Your task to perform on an android device: turn on bluetooth scan Image 0: 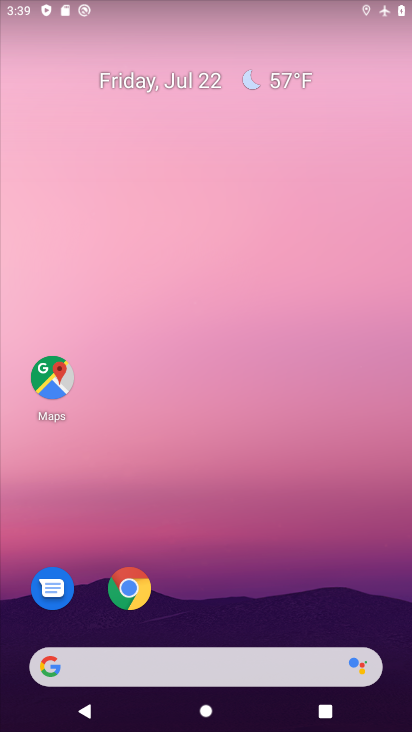
Step 0: drag from (217, 618) to (194, 57)
Your task to perform on an android device: turn on bluetooth scan Image 1: 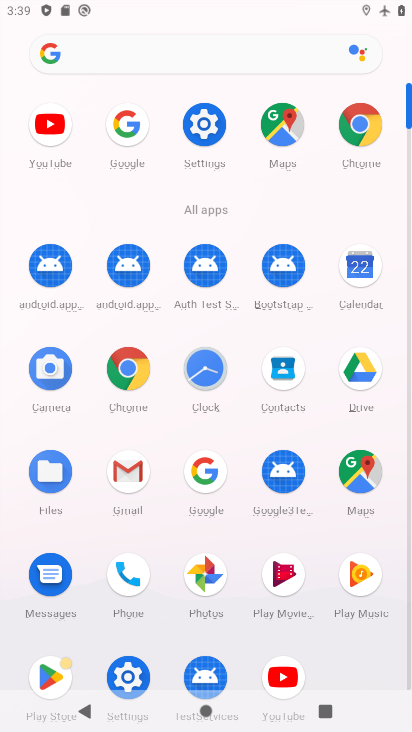
Step 1: click (205, 144)
Your task to perform on an android device: turn on bluetooth scan Image 2: 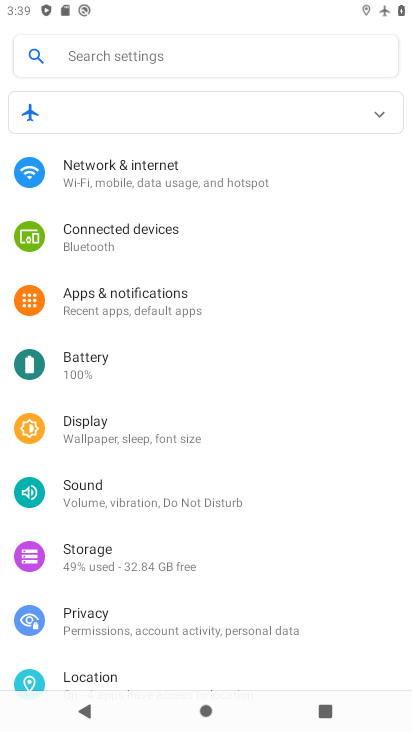
Step 2: drag from (104, 590) to (88, 299)
Your task to perform on an android device: turn on bluetooth scan Image 3: 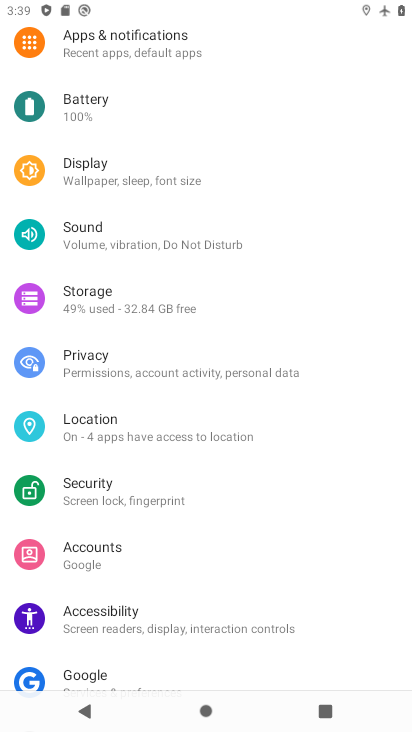
Step 3: click (106, 422)
Your task to perform on an android device: turn on bluetooth scan Image 4: 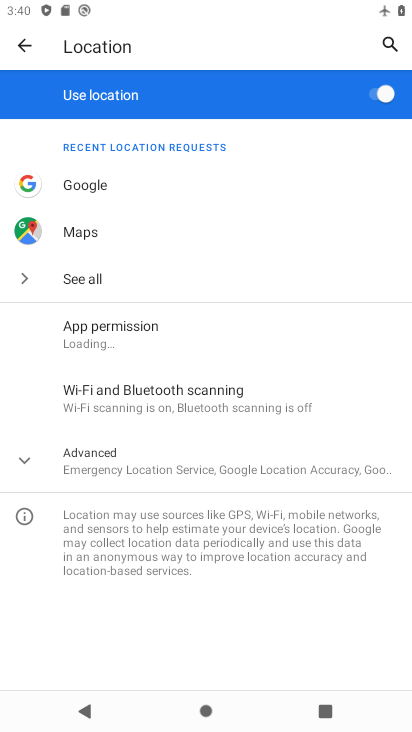
Step 4: click (142, 420)
Your task to perform on an android device: turn on bluetooth scan Image 5: 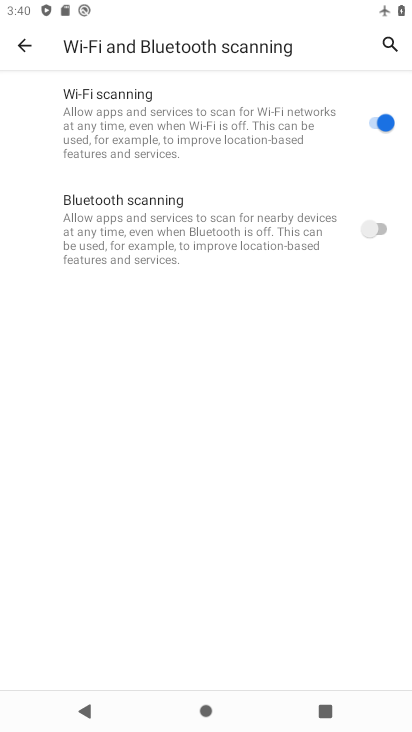
Step 5: click (377, 229)
Your task to perform on an android device: turn on bluetooth scan Image 6: 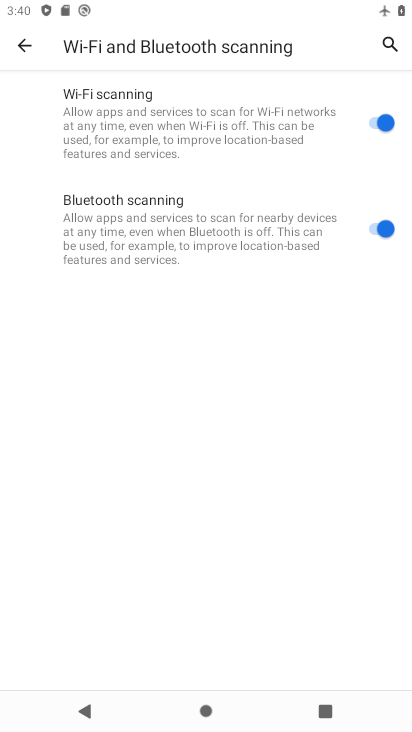
Step 6: task complete